Your task to perform on an android device: turn on showing notifications on the lock screen Image 0: 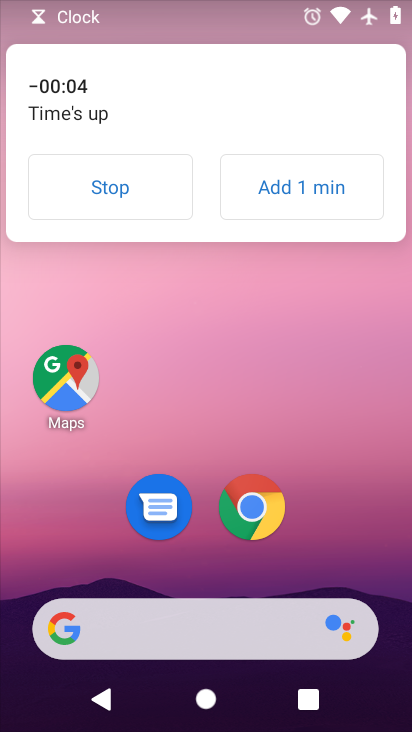
Step 0: drag from (224, 729) to (226, 95)
Your task to perform on an android device: turn on showing notifications on the lock screen Image 1: 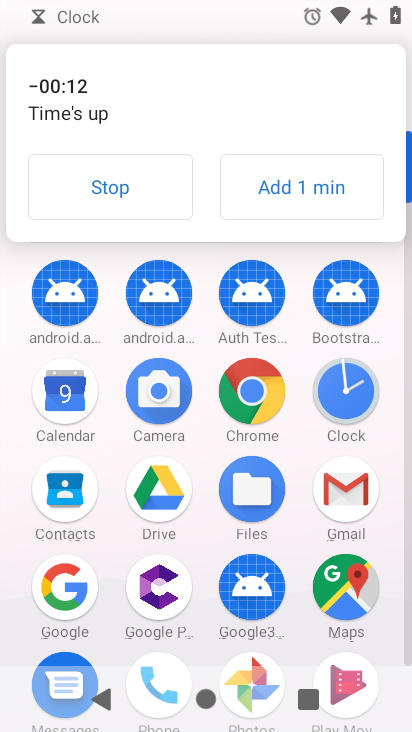
Step 1: drag from (207, 657) to (207, 222)
Your task to perform on an android device: turn on showing notifications on the lock screen Image 2: 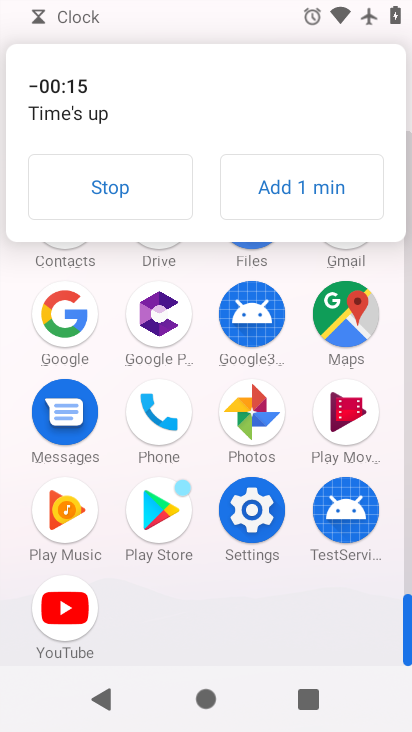
Step 2: click (251, 514)
Your task to perform on an android device: turn on showing notifications on the lock screen Image 3: 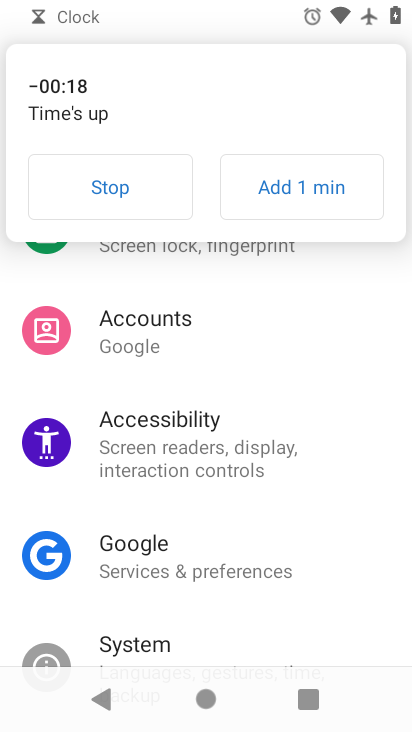
Step 3: drag from (232, 630) to (233, 573)
Your task to perform on an android device: turn on showing notifications on the lock screen Image 4: 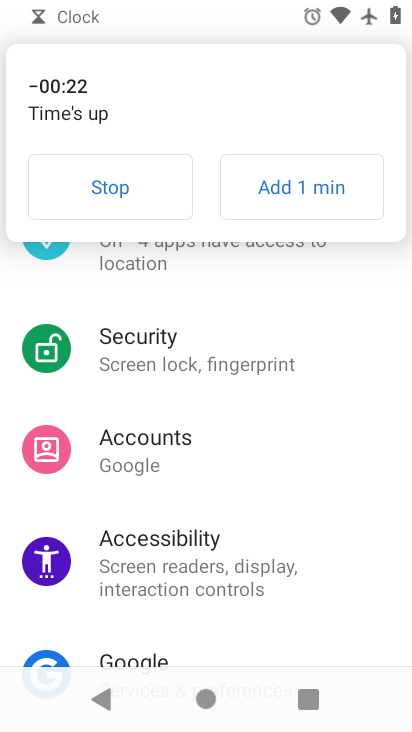
Step 4: drag from (291, 291) to (287, 669)
Your task to perform on an android device: turn on showing notifications on the lock screen Image 5: 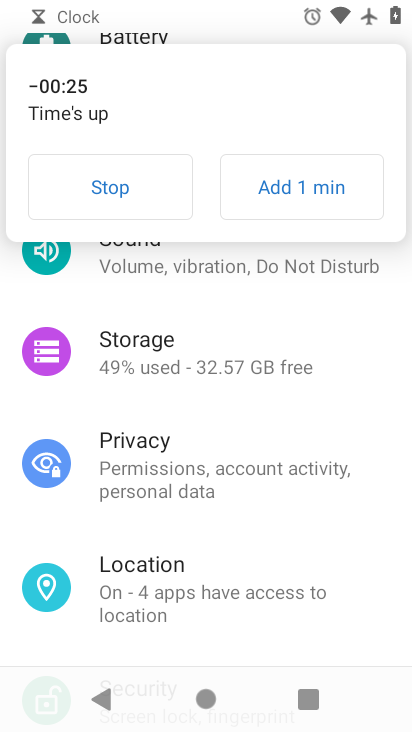
Step 5: drag from (303, 280) to (301, 672)
Your task to perform on an android device: turn on showing notifications on the lock screen Image 6: 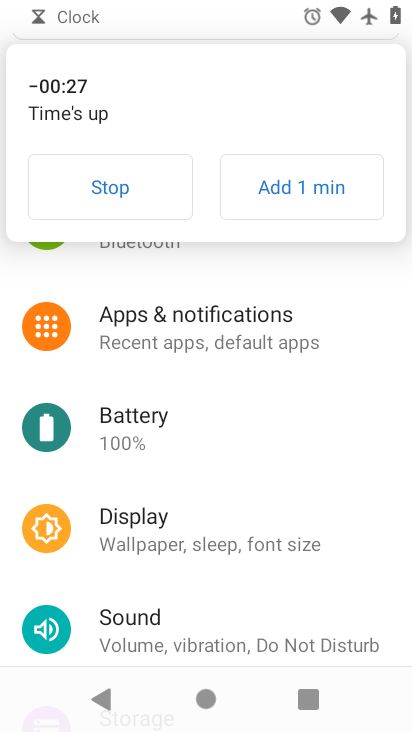
Step 6: click (212, 327)
Your task to perform on an android device: turn on showing notifications on the lock screen Image 7: 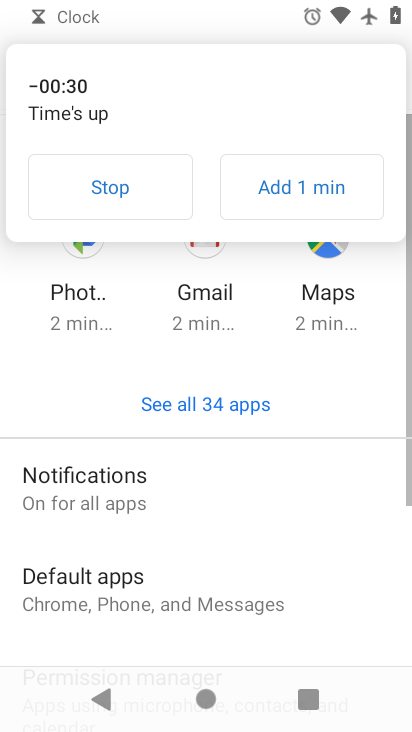
Step 7: click (72, 487)
Your task to perform on an android device: turn on showing notifications on the lock screen Image 8: 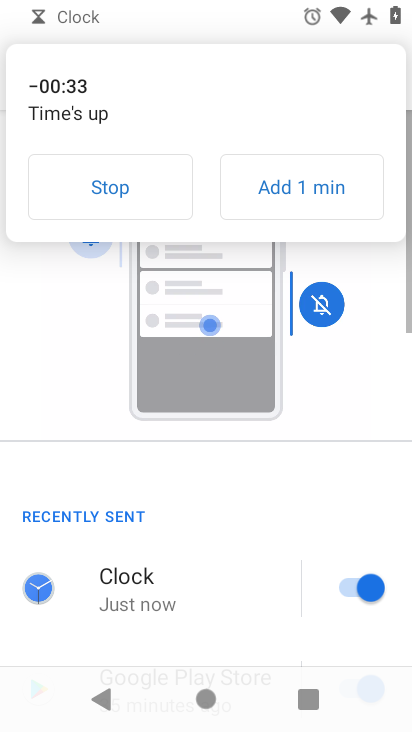
Step 8: drag from (232, 647) to (265, 307)
Your task to perform on an android device: turn on showing notifications on the lock screen Image 9: 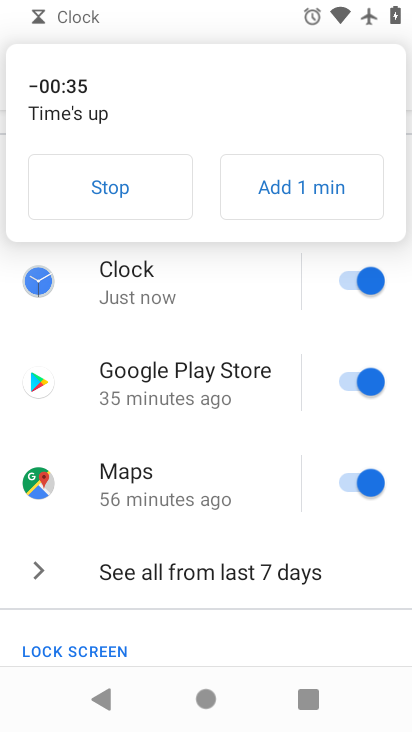
Step 9: drag from (227, 631) to (243, 282)
Your task to perform on an android device: turn on showing notifications on the lock screen Image 10: 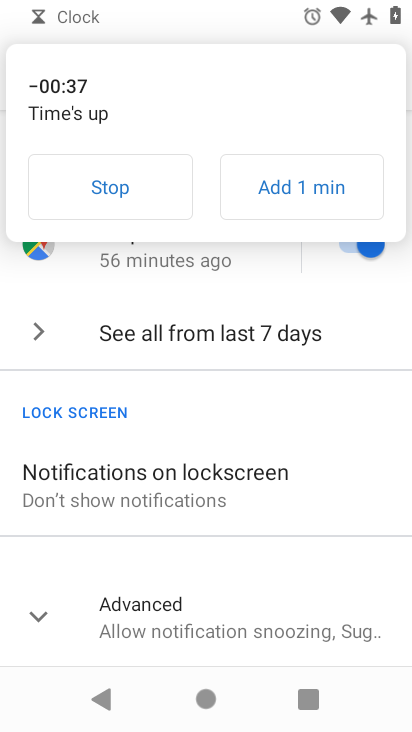
Step 10: click (180, 470)
Your task to perform on an android device: turn on showing notifications on the lock screen Image 11: 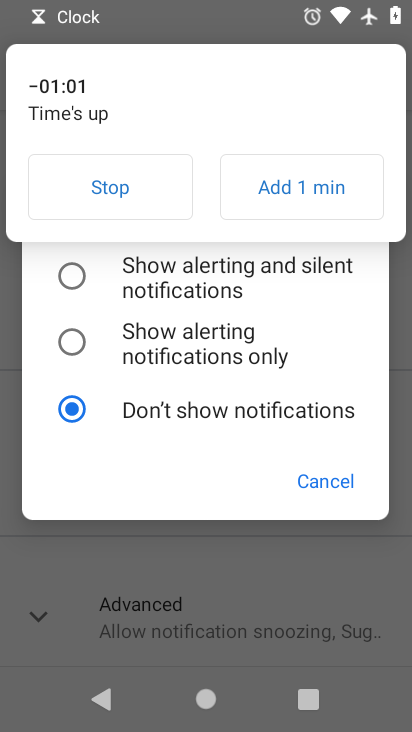
Step 11: click (76, 268)
Your task to perform on an android device: turn on showing notifications on the lock screen Image 12: 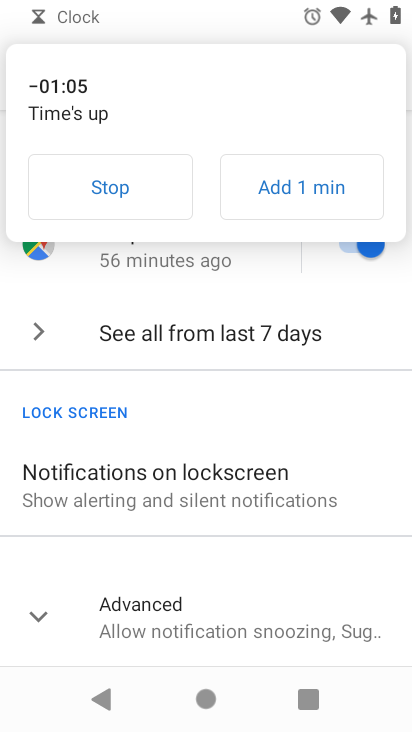
Step 12: task complete